Your task to perform on an android device: stop showing notifications on the lock screen Image 0: 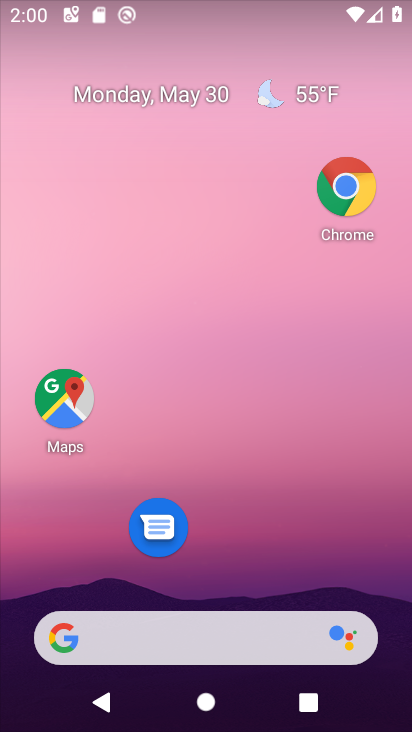
Step 0: drag from (209, 551) to (202, 99)
Your task to perform on an android device: stop showing notifications on the lock screen Image 1: 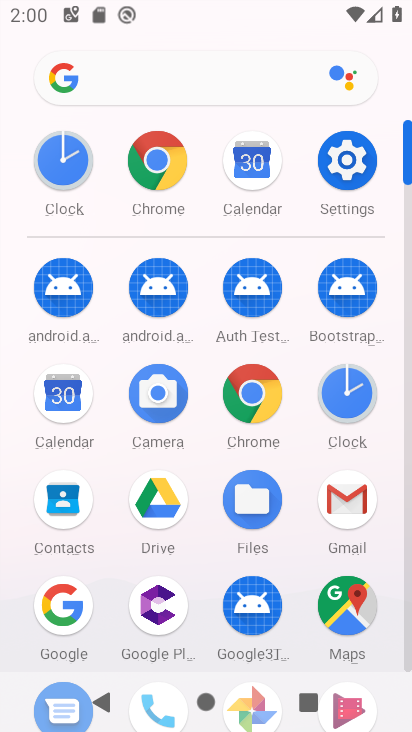
Step 1: click (346, 143)
Your task to perform on an android device: stop showing notifications on the lock screen Image 2: 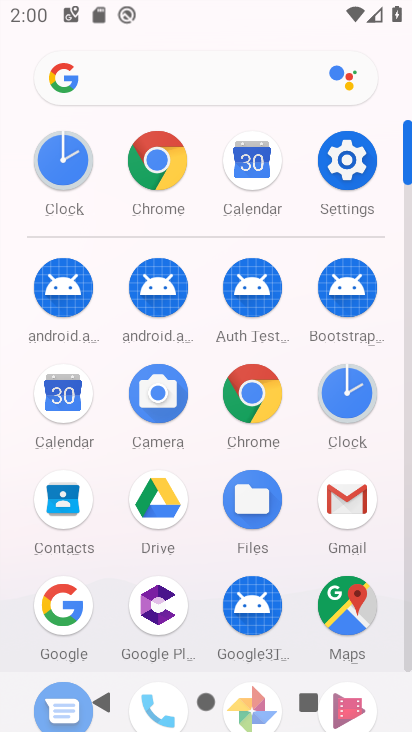
Step 2: click (346, 143)
Your task to perform on an android device: stop showing notifications on the lock screen Image 3: 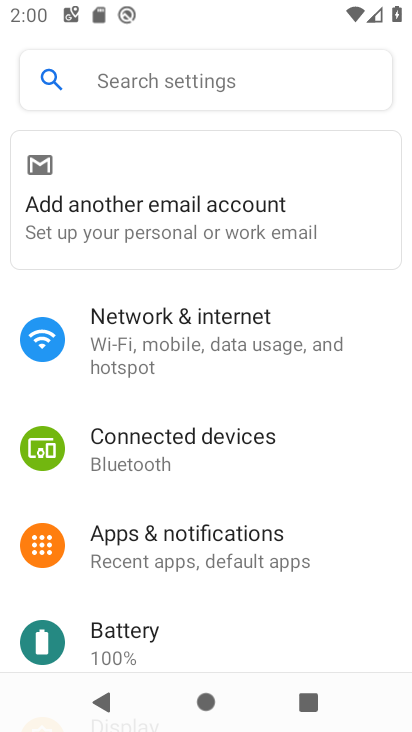
Step 3: click (205, 539)
Your task to perform on an android device: stop showing notifications on the lock screen Image 4: 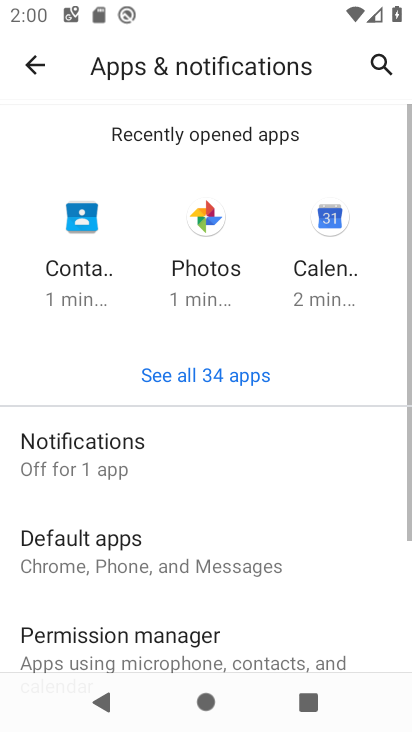
Step 4: drag from (210, 621) to (283, 220)
Your task to perform on an android device: stop showing notifications on the lock screen Image 5: 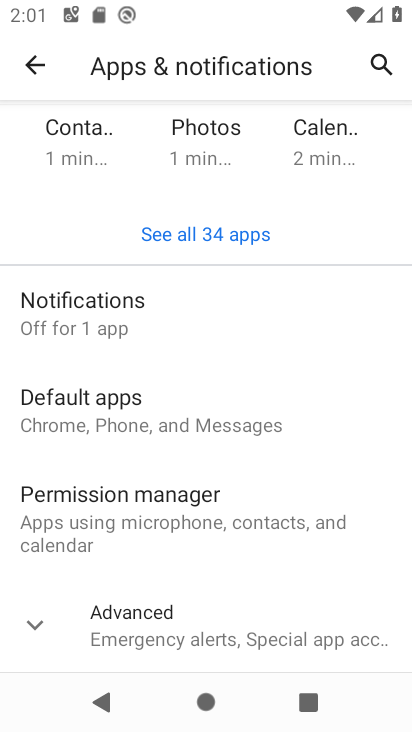
Step 5: click (204, 318)
Your task to perform on an android device: stop showing notifications on the lock screen Image 6: 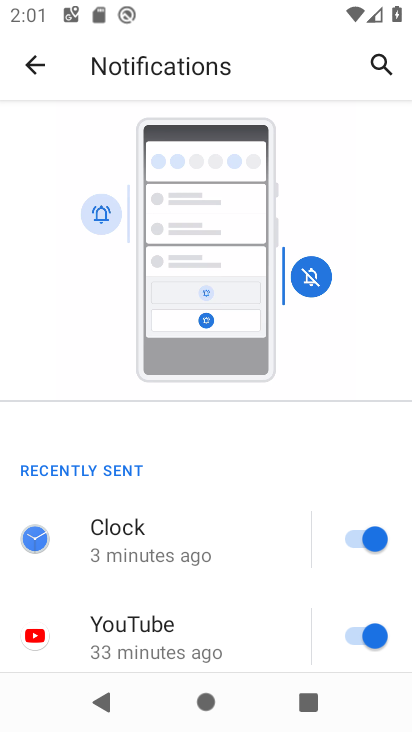
Step 6: drag from (228, 540) to (340, 138)
Your task to perform on an android device: stop showing notifications on the lock screen Image 7: 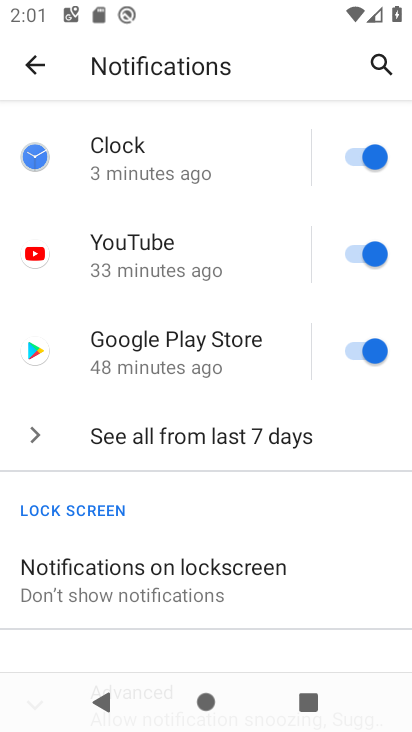
Step 7: click (210, 579)
Your task to perform on an android device: stop showing notifications on the lock screen Image 8: 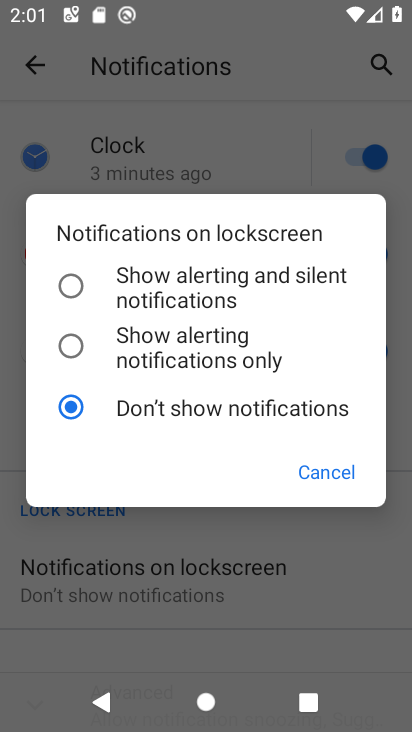
Step 8: task complete